Your task to perform on an android device: Open Android settings Image 0: 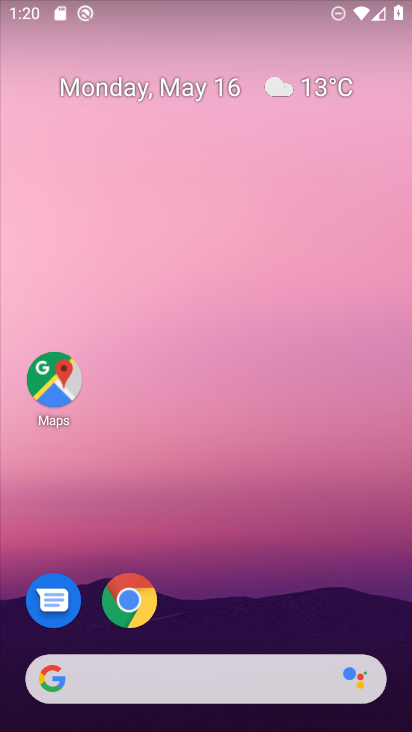
Step 0: drag from (221, 636) to (213, 26)
Your task to perform on an android device: Open Android settings Image 1: 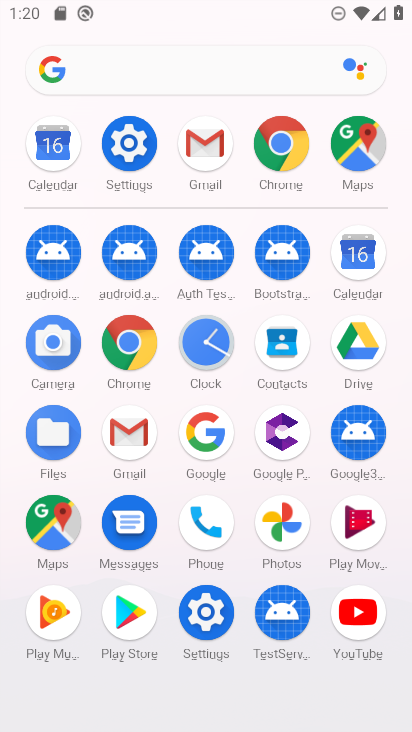
Step 1: click (126, 135)
Your task to perform on an android device: Open Android settings Image 2: 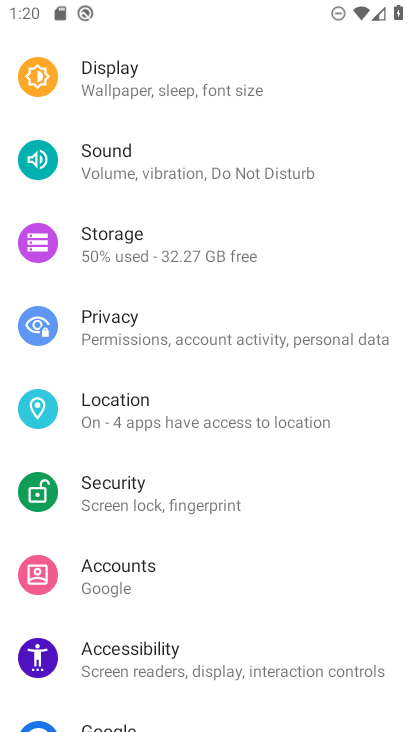
Step 2: drag from (203, 691) to (227, 102)
Your task to perform on an android device: Open Android settings Image 3: 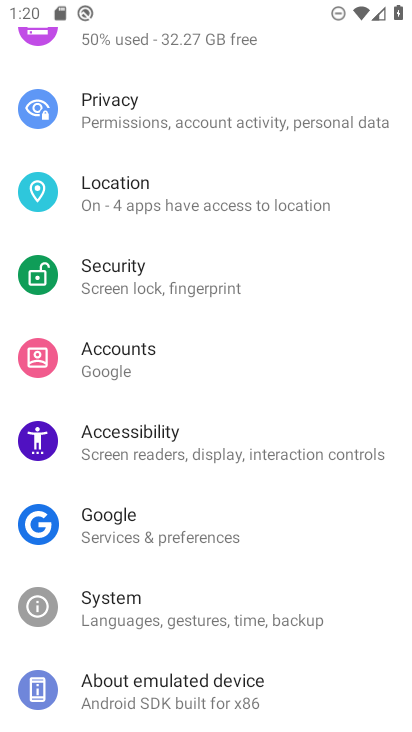
Step 3: click (273, 686)
Your task to perform on an android device: Open Android settings Image 4: 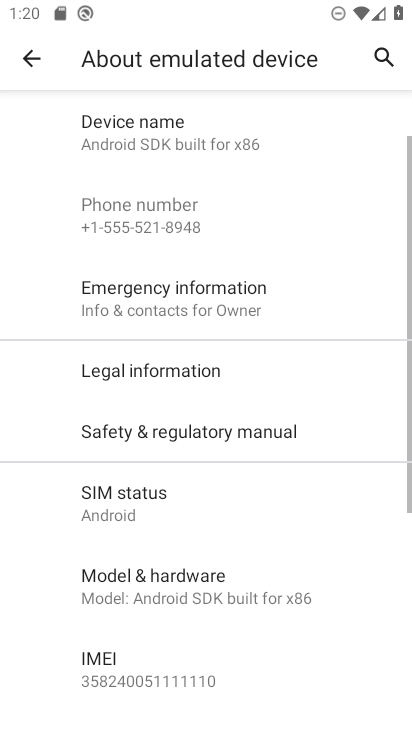
Step 4: task complete